Your task to perform on an android device: Open the stopwatch Image 0: 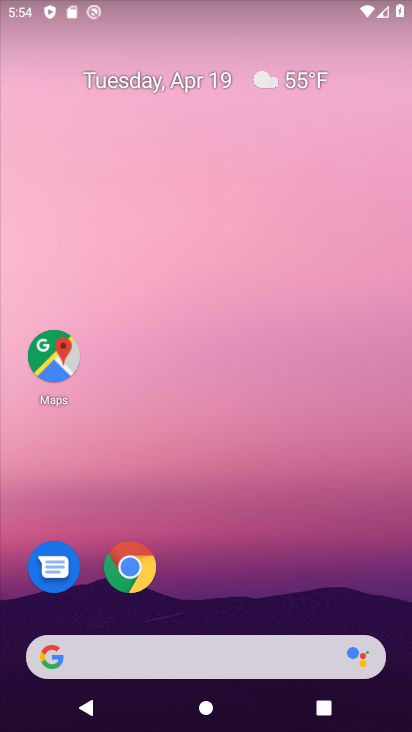
Step 0: drag from (281, 233) to (352, 9)
Your task to perform on an android device: Open the stopwatch Image 1: 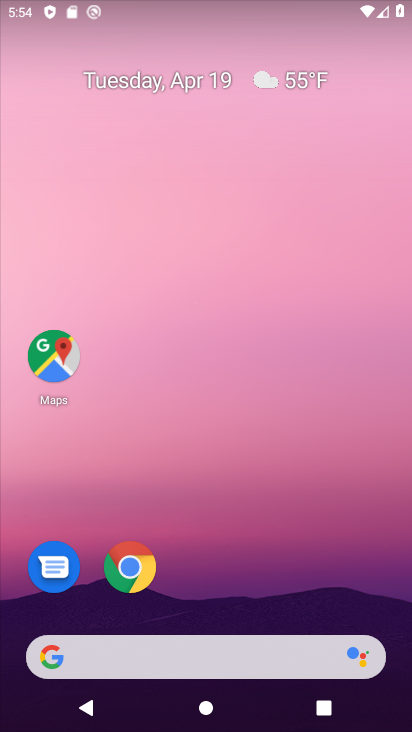
Step 1: drag from (284, 396) to (299, 50)
Your task to perform on an android device: Open the stopwatch Image 2: 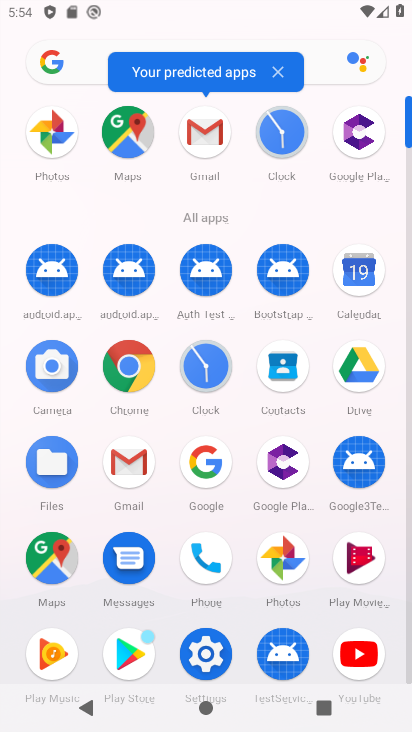
Step 2: click (277, 189)
Your task to perform on an android device: Open the stopwatch Image 3: 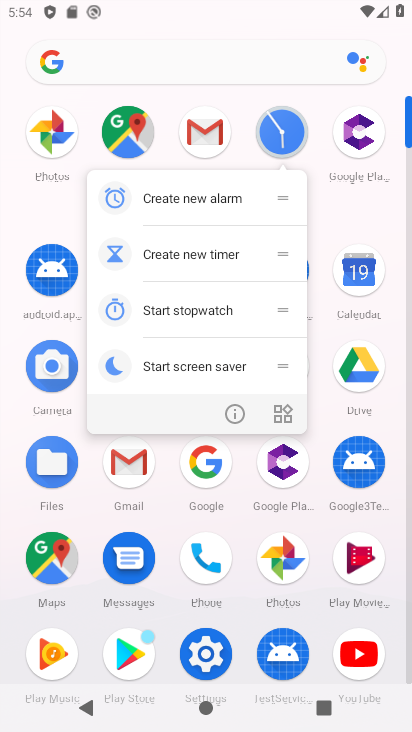
Step 3: click (280, 135)
Your task to perform on an android device: Open the stopwatch Image 4: 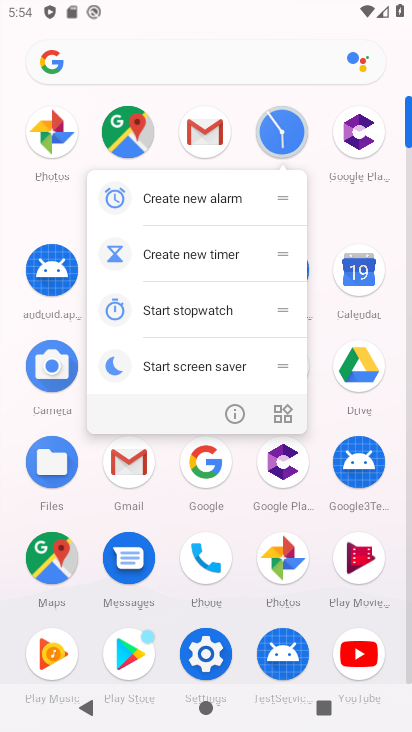
Step 4: click (280, 135)
Your task to perform on an android device: Open the stopwatch Image 5: 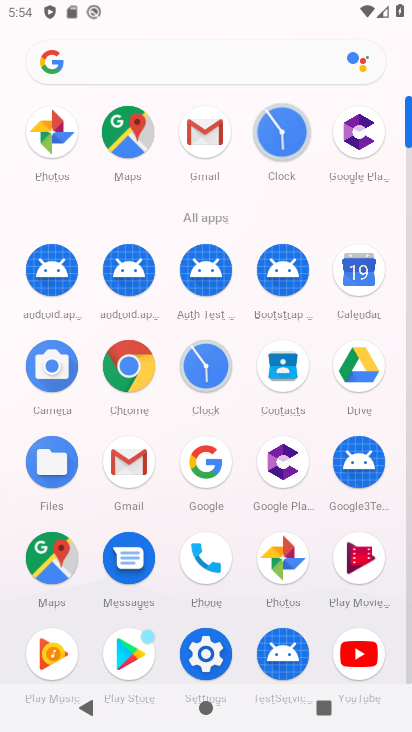
Step 5: click (280, 135)
Your task to perform on an android device: Open the stopwatch Image 6: 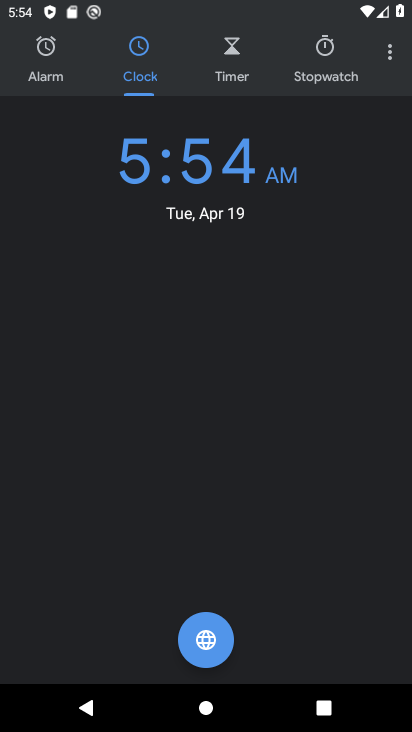
Step 6: click (335, 61)
Your task to perform on an android device: Open the stopwatch Image 7: 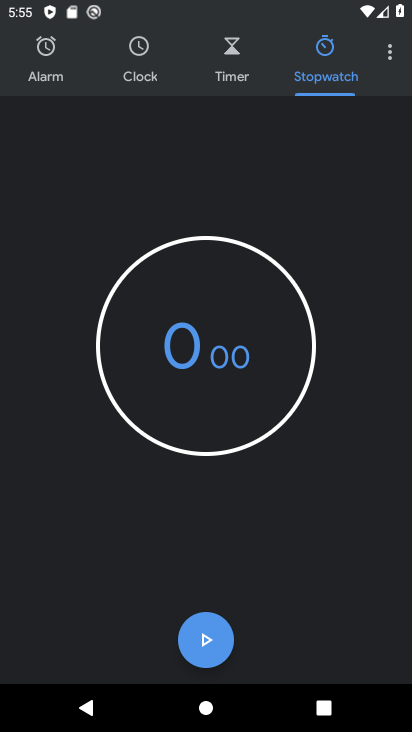
Step 7: click (323, 46)
Your task to perform on an android device: Open the stopwatch Image 8: 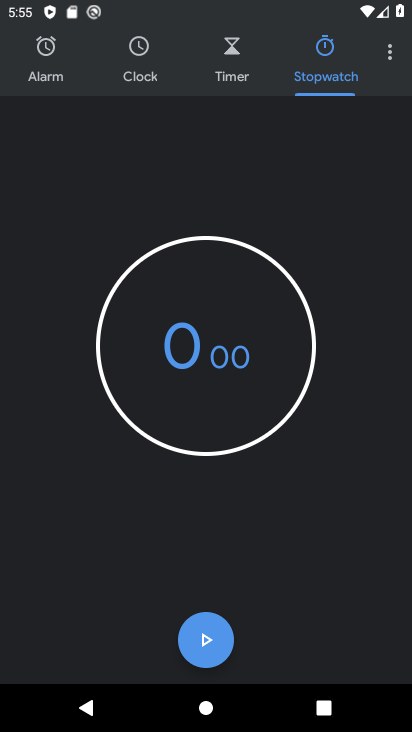
Step 8: task complete